Your task to perform on an android device: Open display settings Image 0: 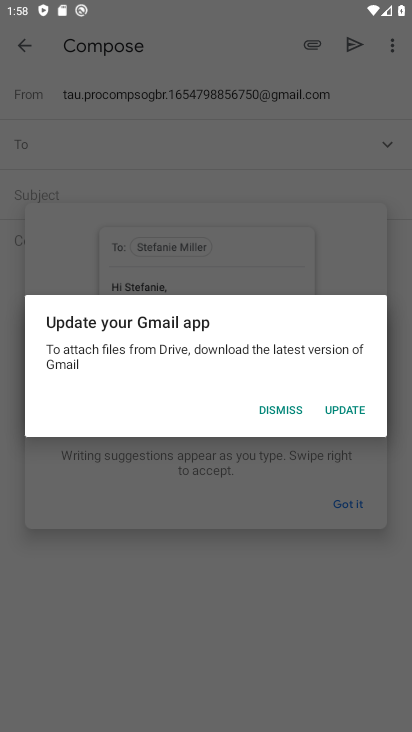
Step 0: press home button
Your task to perform on an android device: Open display settings Image 1: 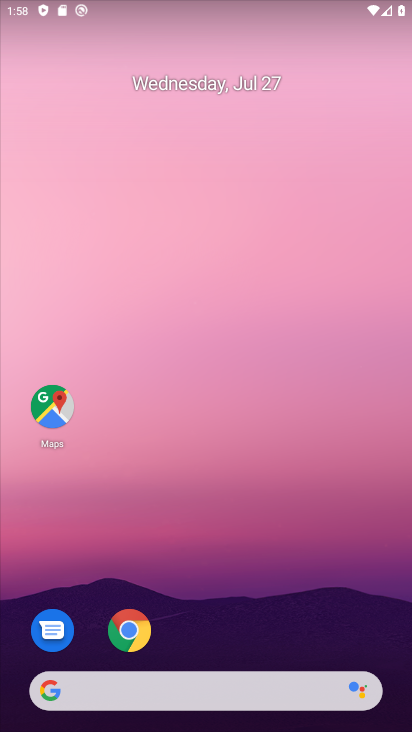
Step 1: drag from (246, 568) to (216, 137)
Your task to perform on an android device: Open display settings Image 2: 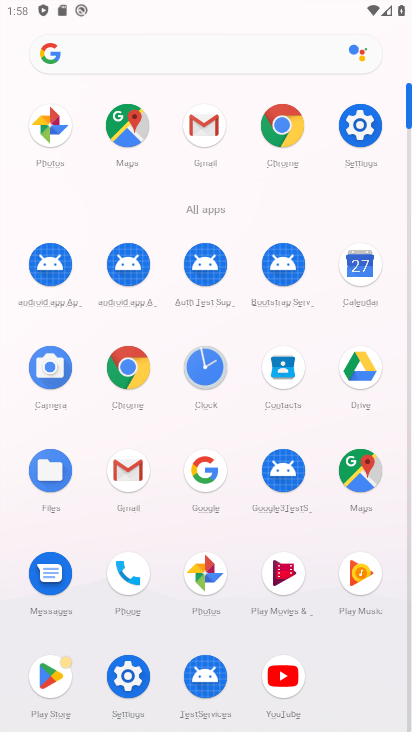
Step 2: click (356, 111)
Your task to perform on an android device: Open display settings Image 3: 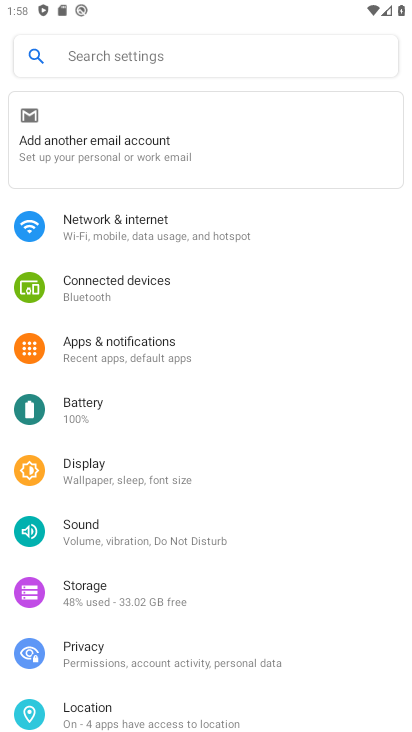
Step 3: click (114, 467)
Your task to perform on an android device: Open display settings Image 4: 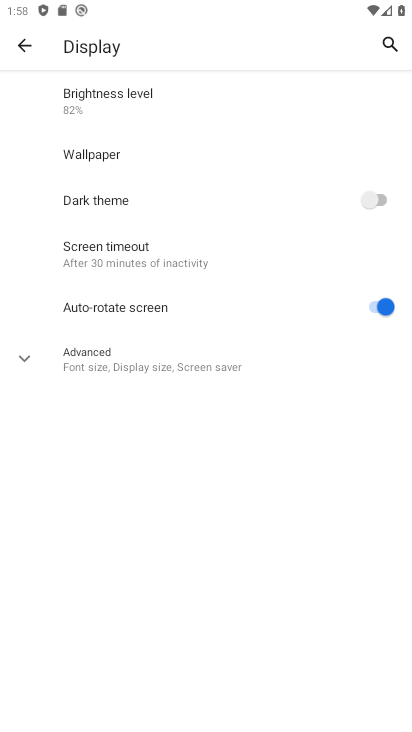
Step 4: task complete